Your task to perform on an android device: Show me the alarms in the clock app Image 0: 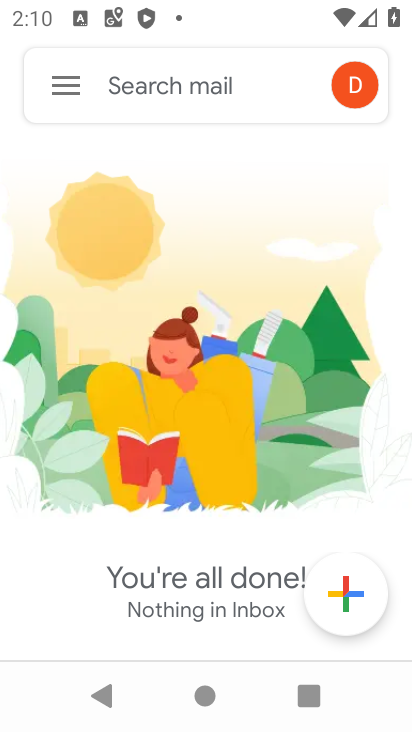
Step 0: press home button
Your task to perform on an android device: Show me the alarms in the clock app Image 1: 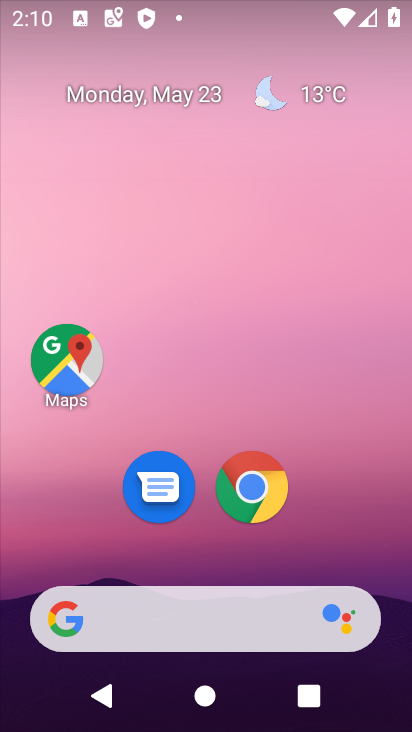
Step 1: drag from (370, 630) to (339, 91)
Your task to perform on an android device: Show me the alarms in the clock app Image 2: 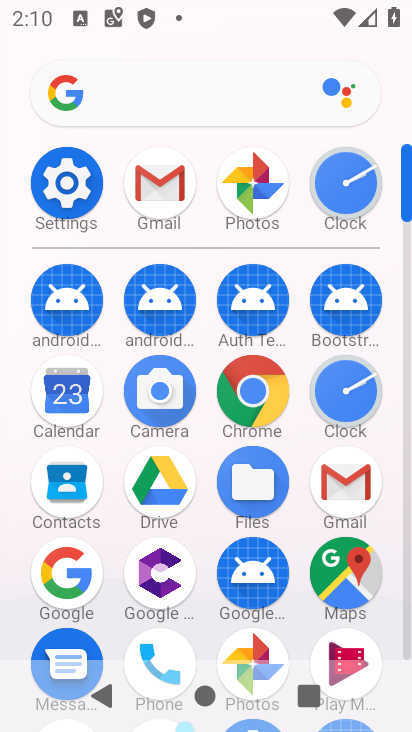
Step 2: click (343, 391)
Your task to perform on an android device: Show me the alarms in the clock app Image 3: 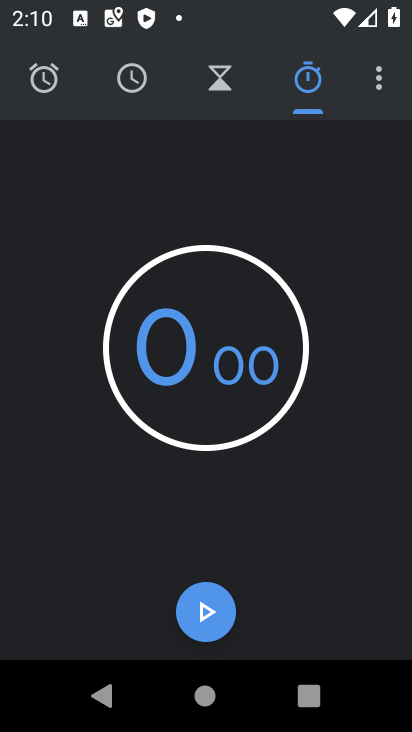
Step 3: click (47, 82)
Your task to perform on an android device: Show me the alarms in the clock app Image 4: 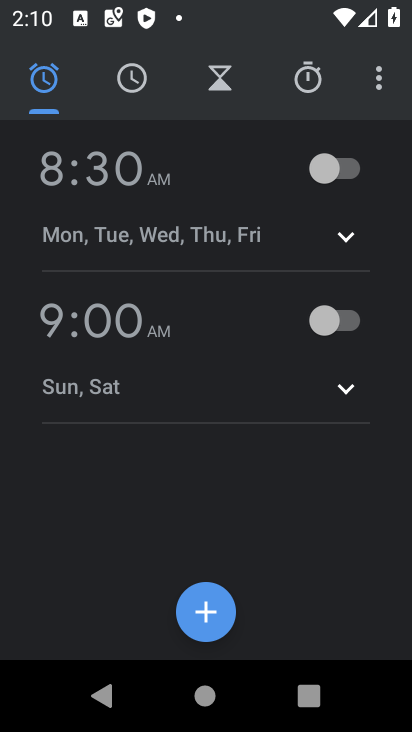
Step 4: click (71, 167)
Your task to perform on an android device: Show me the alarms in the clock app Image 5: 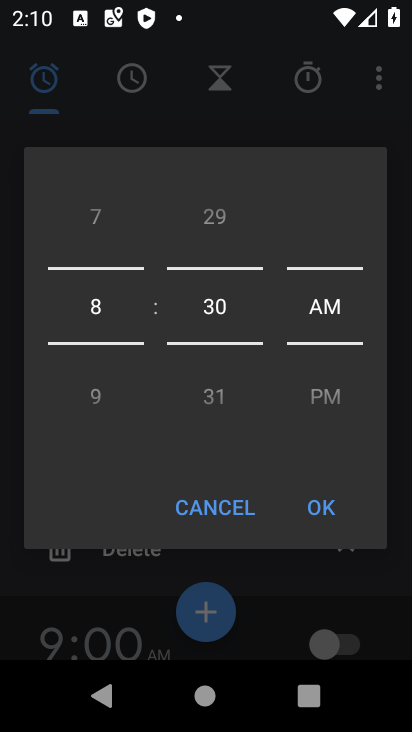
Step 5: click (213, 495)
Your task to perform on an android device: Show me the alarms in the clock app Image 6: 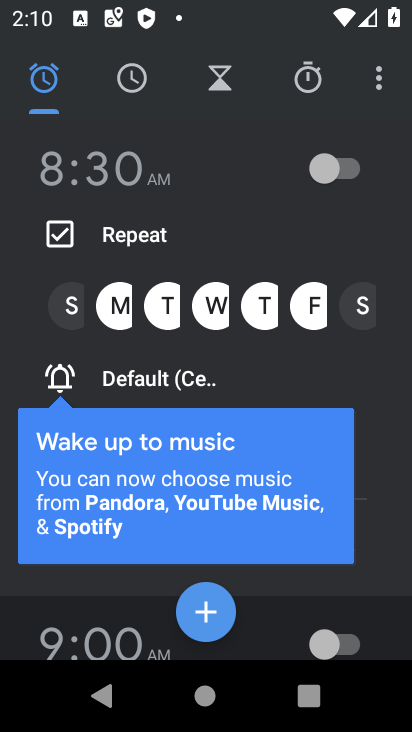
Step 6: task complete